Your task to perform on an android device: set default search engine in the chrome app Image 0: 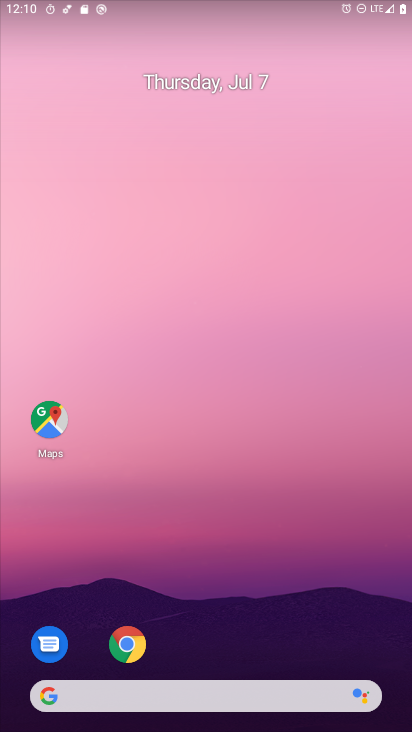
Step 0: drag from (218, 638) to (226, 64)
Your task to perform on an android device: set default search engine in the chrome app Image 1: 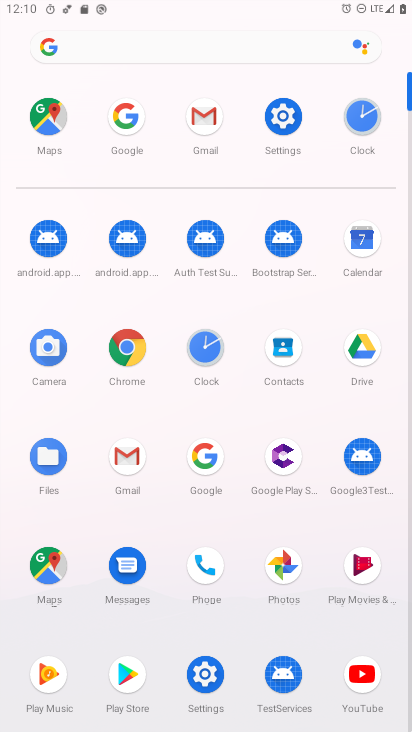
Step 1: click (126, 348)
Your task to perform on an android device: set default search engine in the chrome app Image 2: 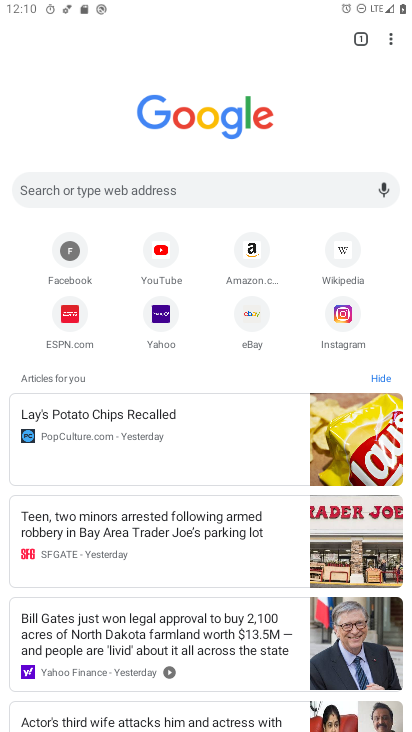
Step 2: click (388, 39)
Your task to perform on an android device: set default search engine in the chrome app Image 3: 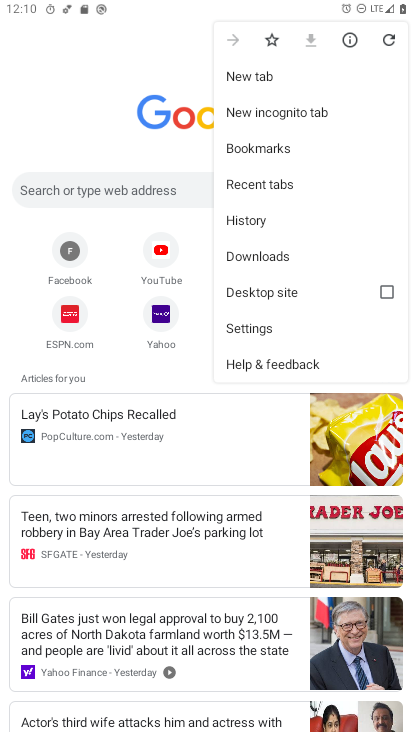
Step 3: click (257, 331)
Your task to perform on an android device: set default search engine in the chrome app Image 4: 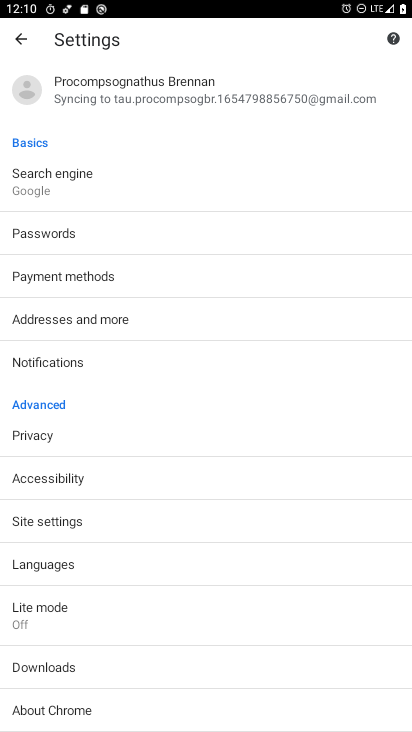
Step 4: click (110, 188)
Your task to perform on an android device: set default search engine in the chrome app Image 5: 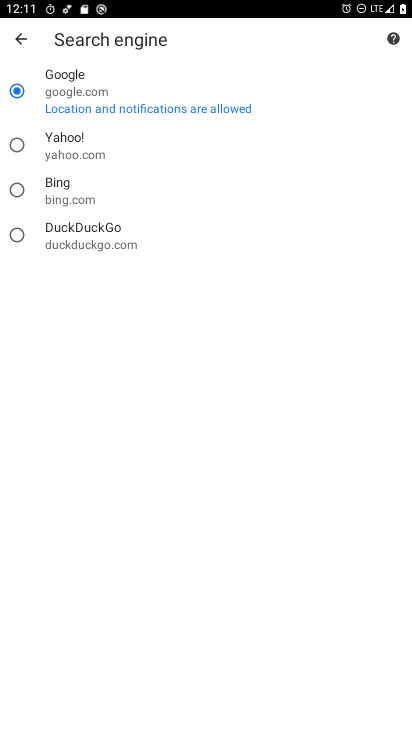
Step 5: click (15, 140)
Your task to perform on an android device: set default search engine in the chrome app Image 6: 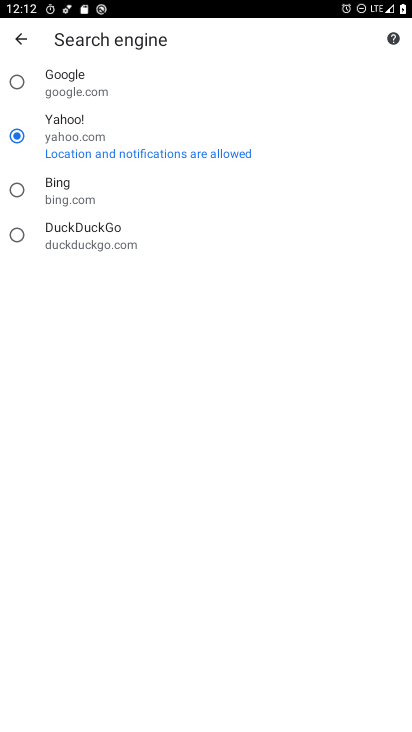
Step 6: task complete